Your task to perform on an android device: Open the phone app and click the voicemail tab. Image 0: 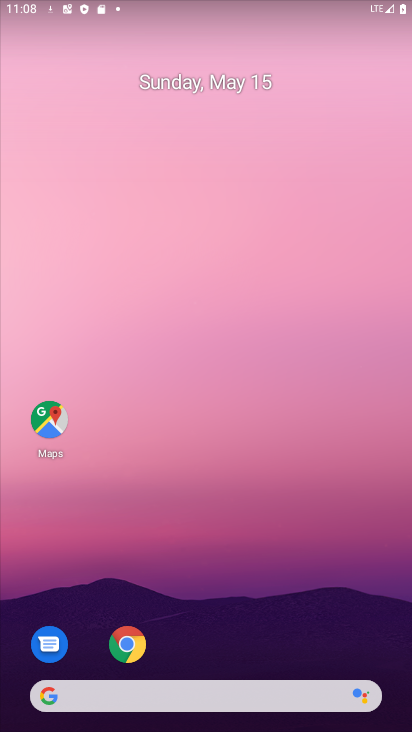
Step 0: drag from (206, 702) to (284, 211)
Your task to perform on an android device: Open the phone app and click the voicemail tab. Image 1: 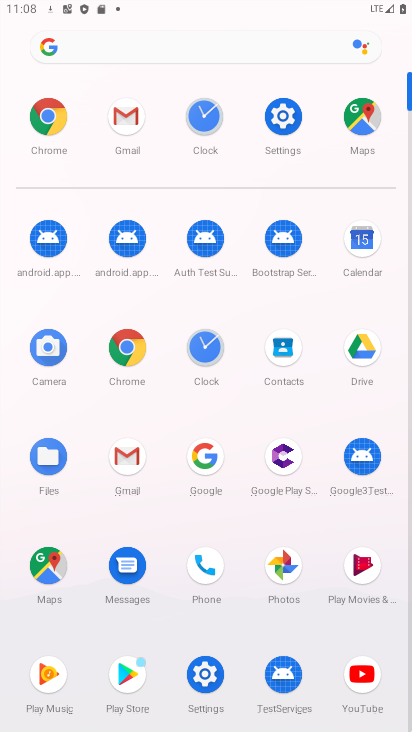
Step 1: click (208, 557)
Your task to perform on an android device: Open the phone app and click the voicemail tab. Image 2: 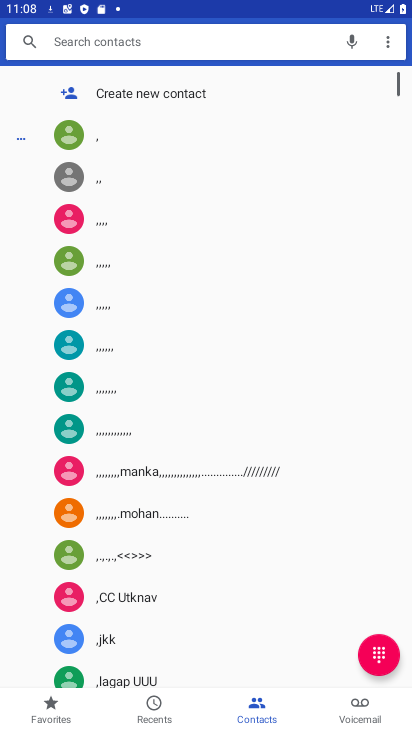
Step 2: click (349, 706)
Your task to perform on an android device: Open the phone app and click the voicemail tab. Image 3: 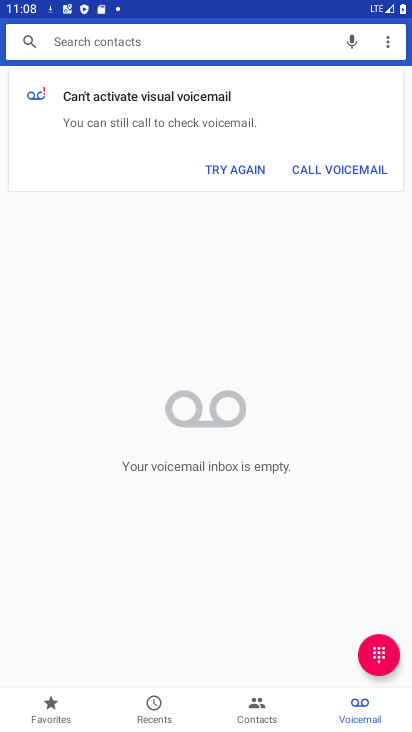
Step 3: task complete